Your task to perform on an android device: Open Google Maps Image 0: 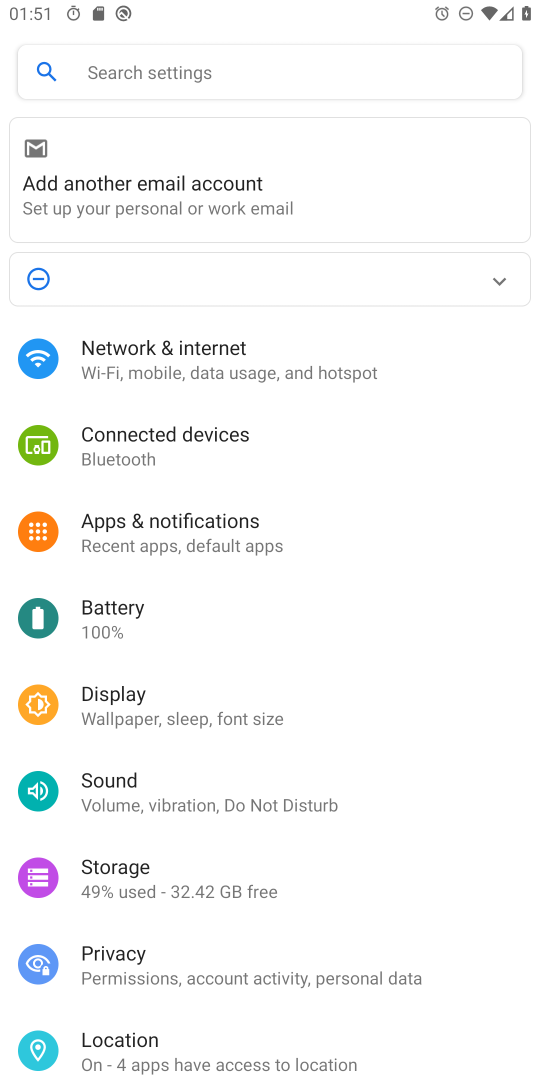
Step 0: press home button
Your task to perform on an android device: Open Google Maps Image 1: 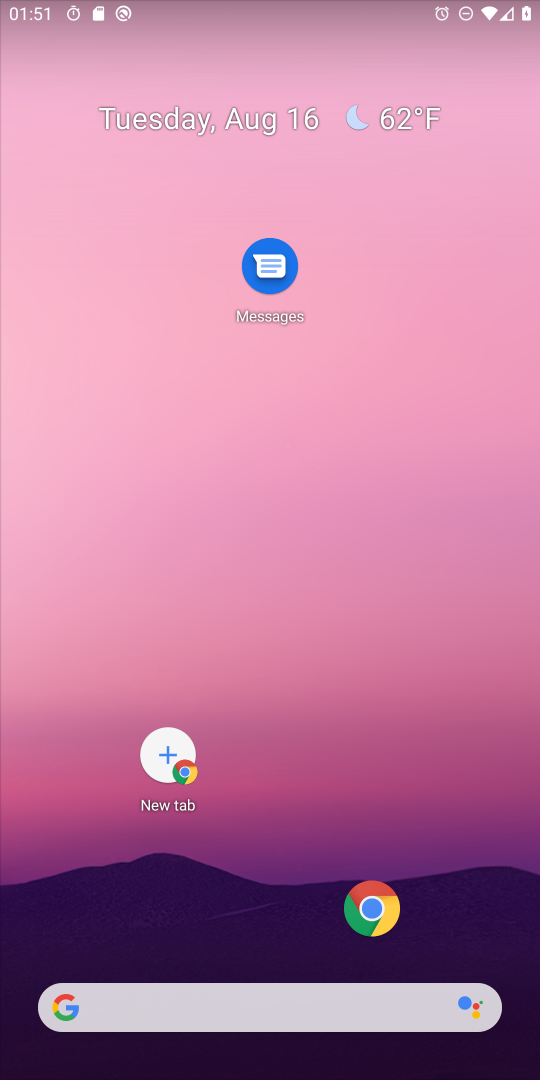
Step 1: drag from (225, 900) to (242, 141)
Your task to perform on an android device: Open Google Maps Image 2: 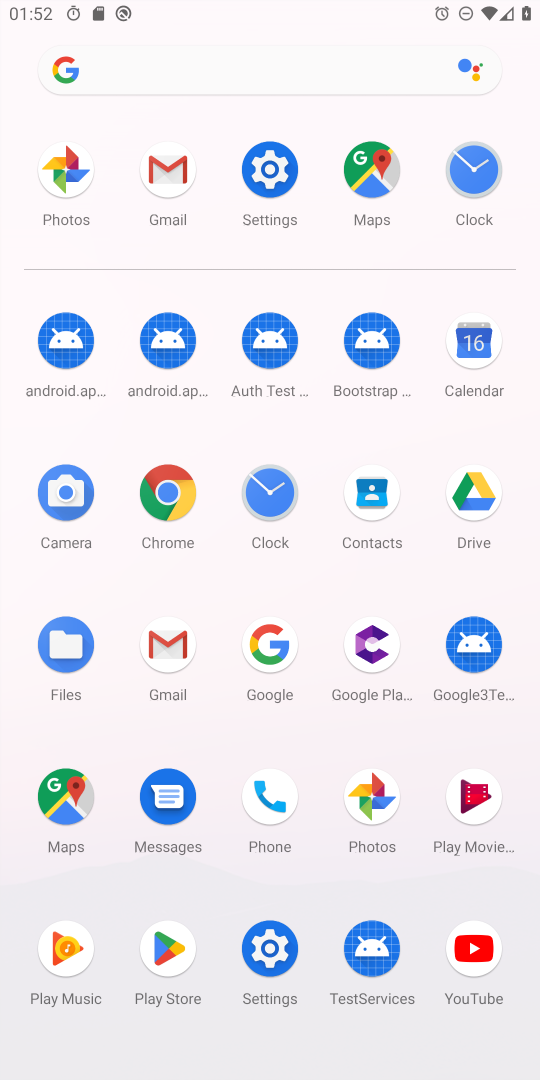
Step 2: click (48, 764)
Your task to perform on an android device: Open Google Maps Image 3: 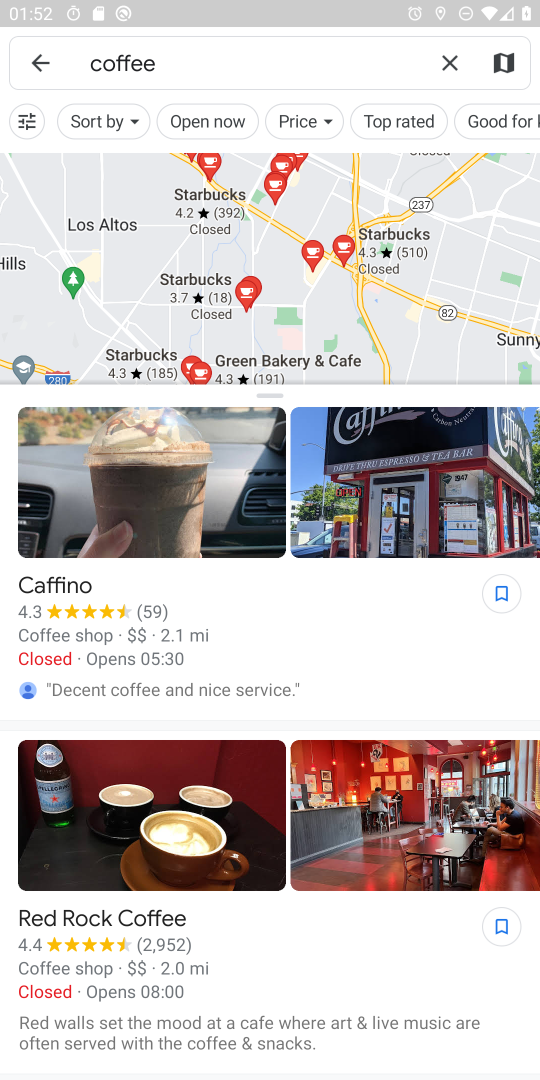
Step 3: task complete